Your task to perform on an android device: turn off data saver in the chrome app Image 0: 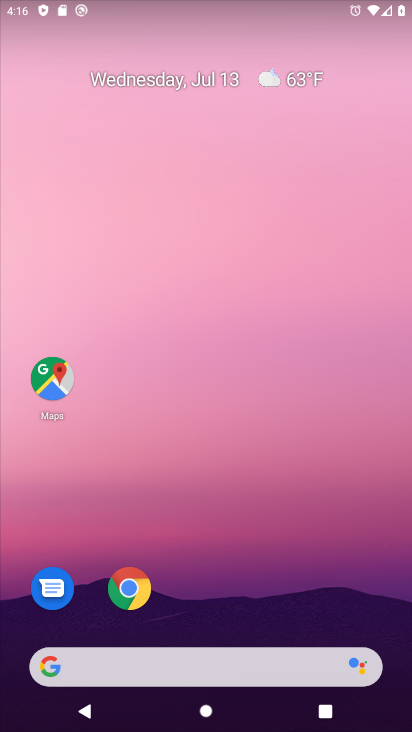
Step 0: click (130, 588)
Your task to perform on an android device: turn off data saver in the chrome app Image 1: 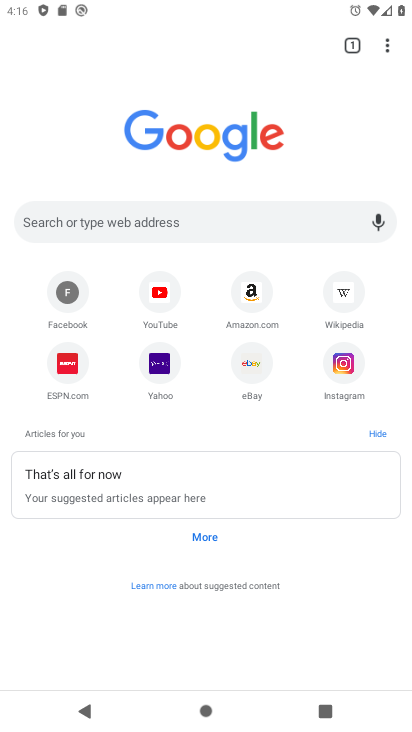
Step 1: click (387, 46)
Your task to perform on an android device: turn off data saver in the chrome app Image 2: 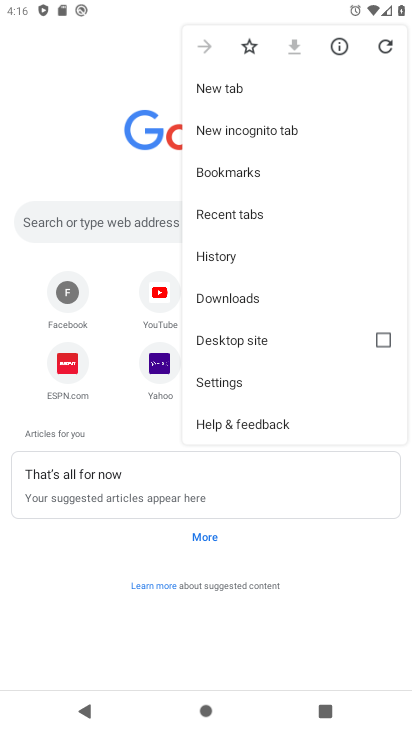
Step 2: click (226, 381)
Your task to perform on an android device: turn off data saver in the chrome app Image 3: 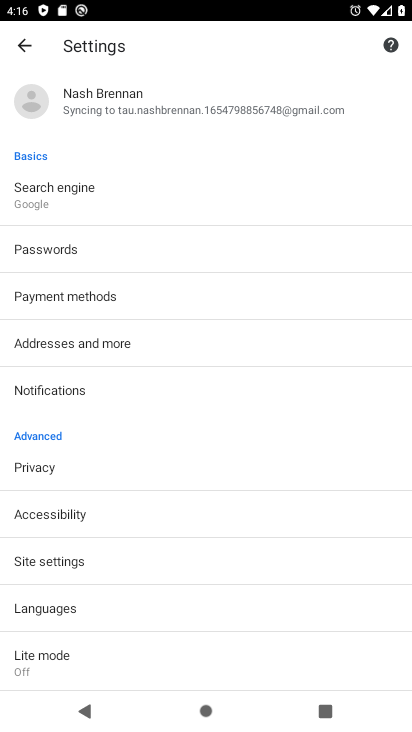
Step 3: click (51, 654)
Your task to perform on an android device: turn off data saver in the chrome app Image 4: 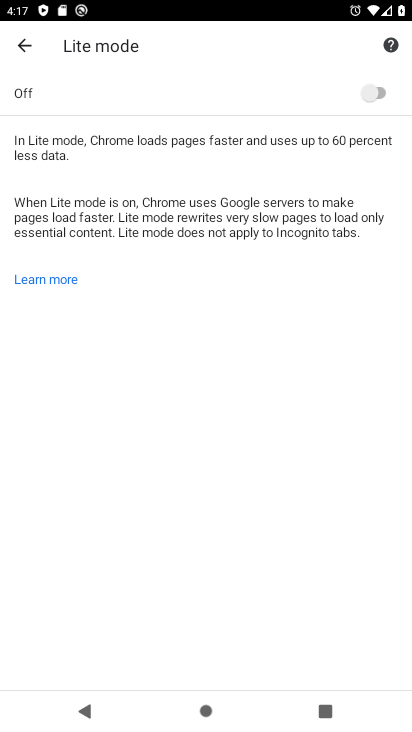
Step 4: task complete